Your task to perform on an android device: Open the downloads Image 0: 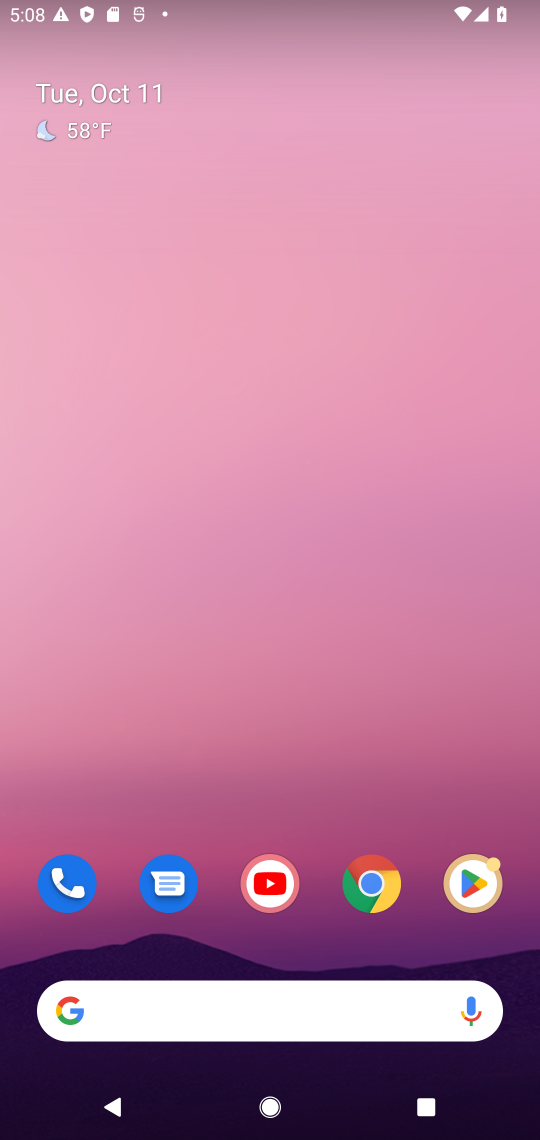
Step 0: drag from (327, 949) to (288, 95)
Your task to perform on an android device: Open the downloads Image 1: 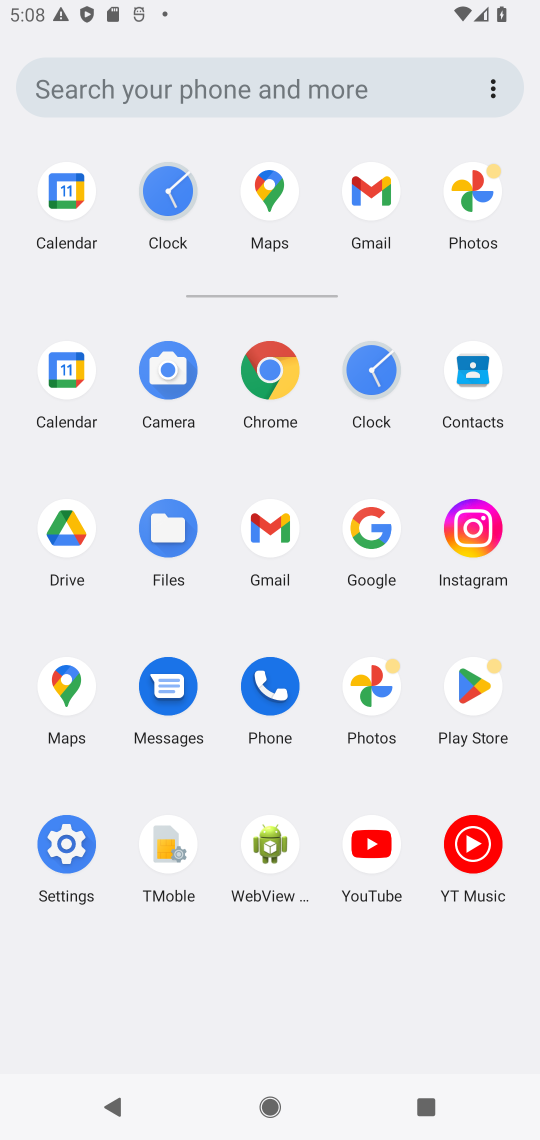
Step 1: click (271, 369)
Your task to perform on an android device: Open the downloads Image 2: 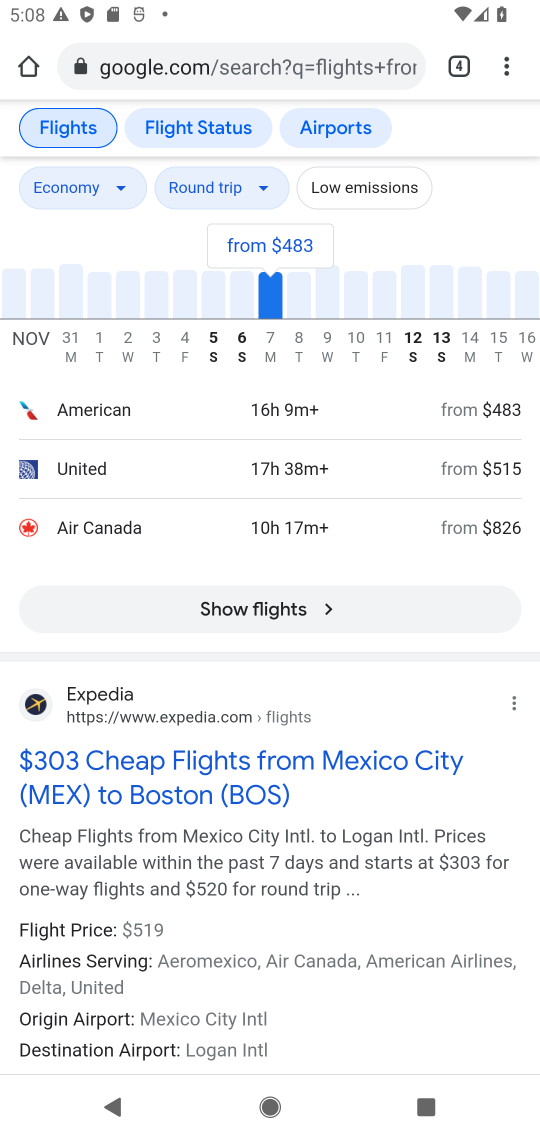
Step 2: task complete